Your task to perform on an android device: read, delete, or share a saved page in the chrome app Image 0: 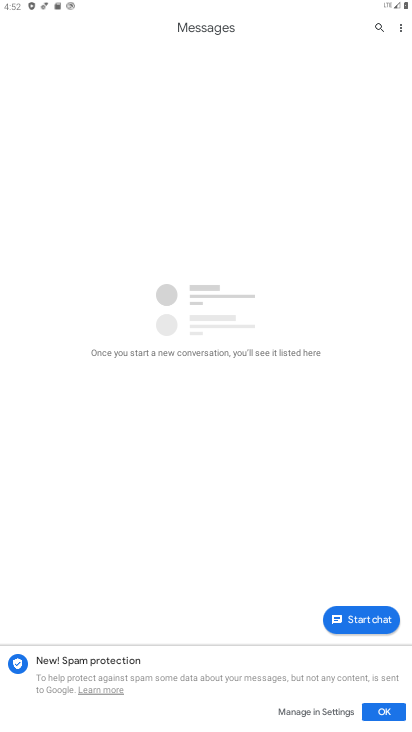
Step 0: press home button
Your task to perform on an android device: read, delete, or share a saved page in the chrome app Image 1: 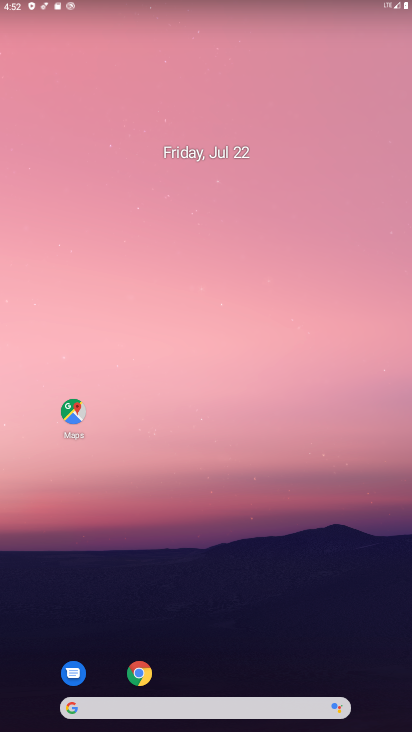
Step 1: click (142, 675)
Your task to perform on an android device: read, delete, or share a saved page in the chrome app Image 2: 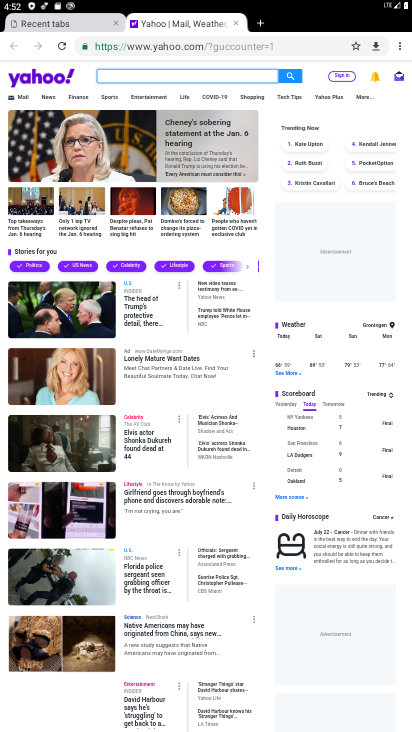
Step 2: drag from (400, 44) to (317, 163)
Your task to perform on an android device: read, delete, or share a saved page in the chrome app Image 3: 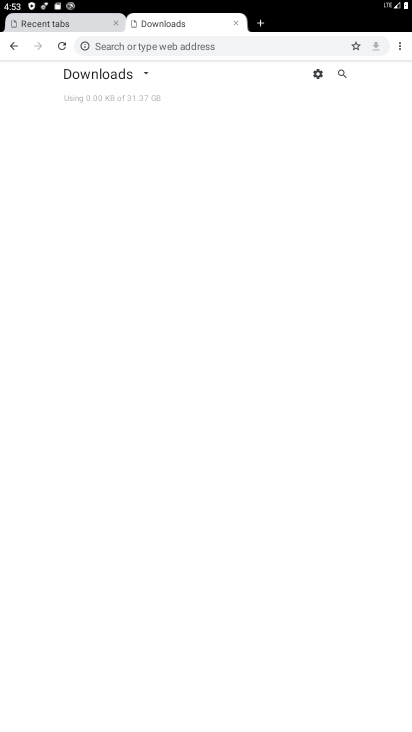
Step 3: click (148, 76)
Your task to perform on an android device: read, delete, or share a saved page in the chrome app Image 4: 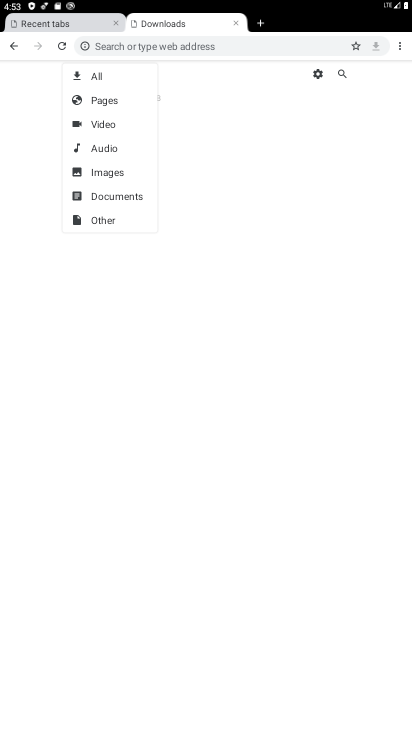
Step 4: click (108, 104)
Your task to perform on an android device: read, delete, or share a saved page in the chrome app Image 5: 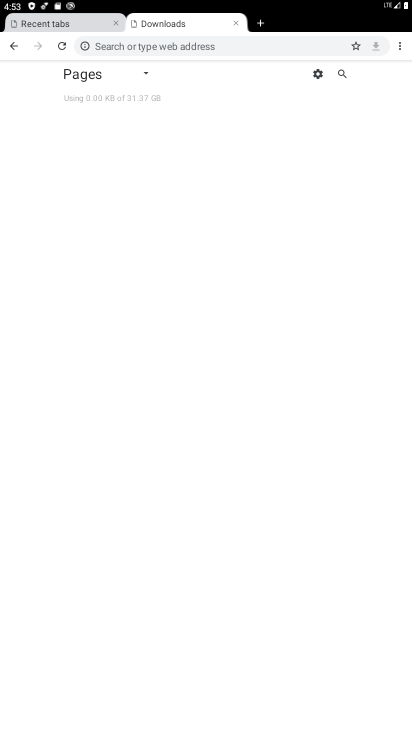
Step 5: task complete